Your task to perform on an android device: toggle pop-ups in chrome Image 0: 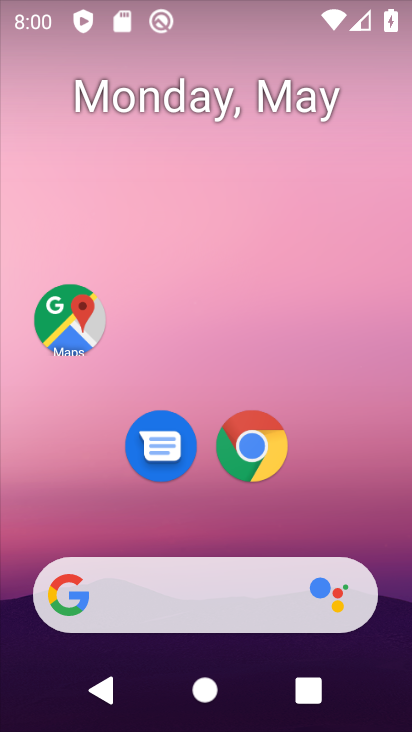
Step 0: click (266, 459)
Your task to perform on an android device: toggle pop-ups in chrome Image 1: 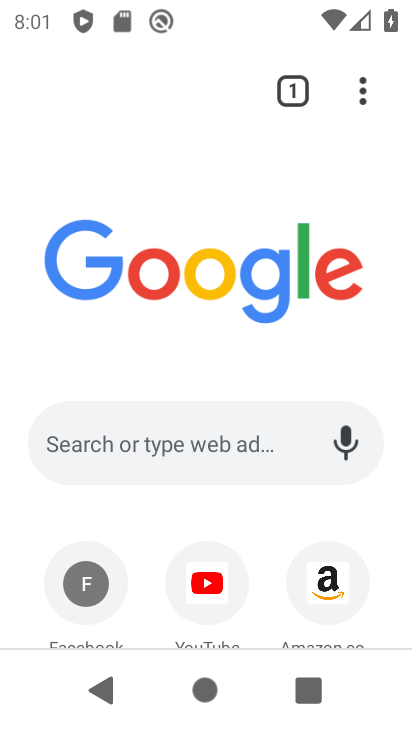
Step 1: click (360, 94)
Your task to perform on an android device: toggle pop-ups in chrome Image 2: 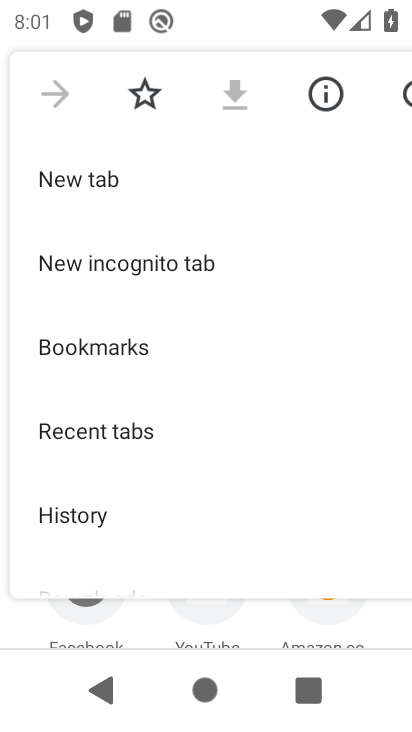
Step 2: drag from (265, 281) to (239, 59)
Your task to perform on an android device: toggle pop-ups in chrome Image 3: 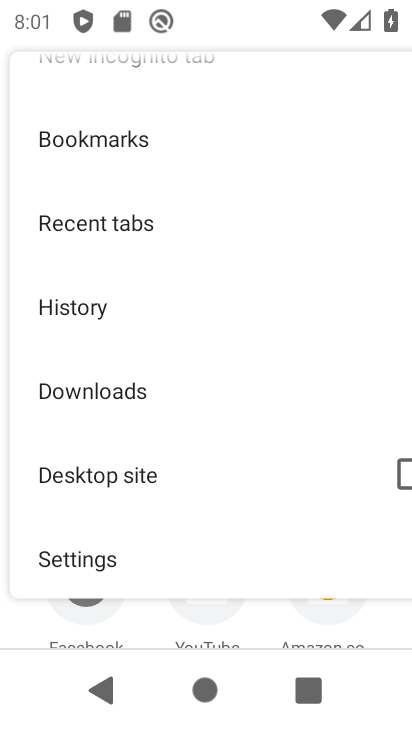
Step 3: drag from (265, 540) to (171, 300)
Your task to perform on an android device: toggle pop-ups in chrome Image 4: 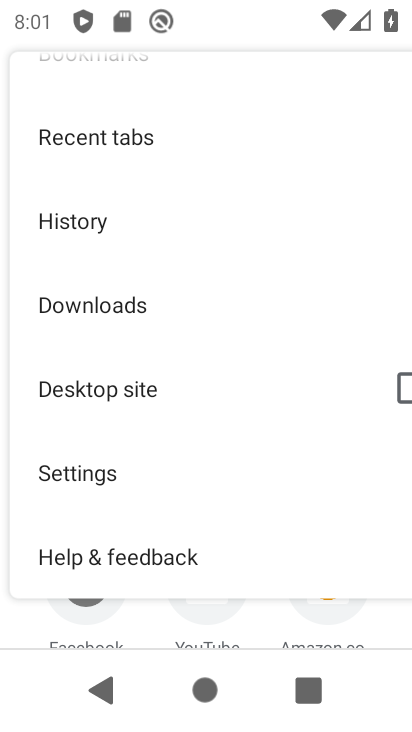
Step 4: click (126, 466)
Your task to perform on an android device: toggle pop-ups in chrome Image 5: 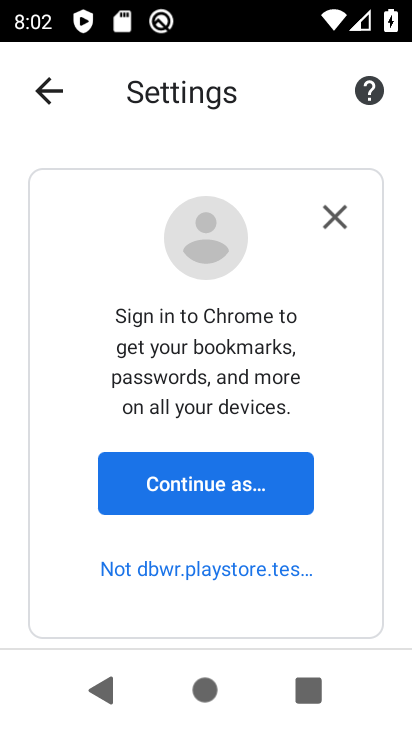
Step 5: click (170, 472)
Your task to perform on an android device: toggle pop-ups in chrome Image 6: 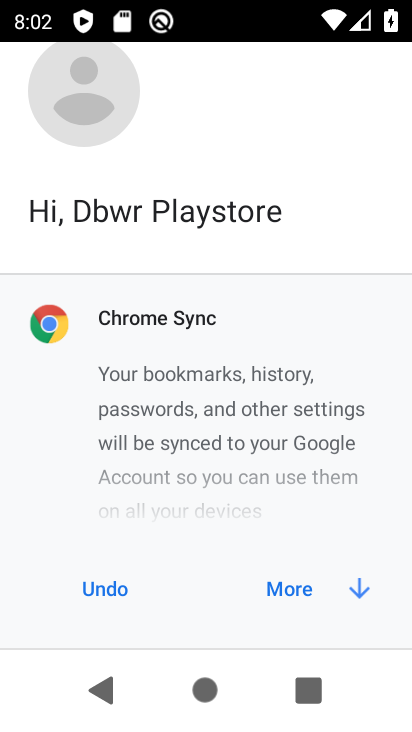
Step 6: click (282, 577)
Your task to perform on an android device: toggle pop-ups in chrome Image 7: 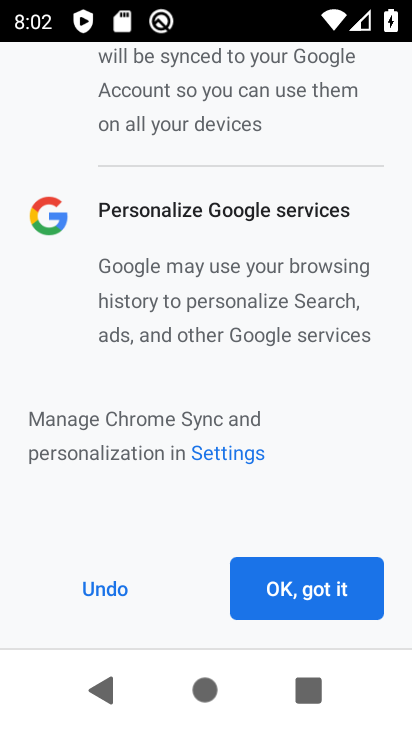
Step 7: click (291, 583)
Your task to perform on an android device: toggle pop-ups in chrome Image 8: 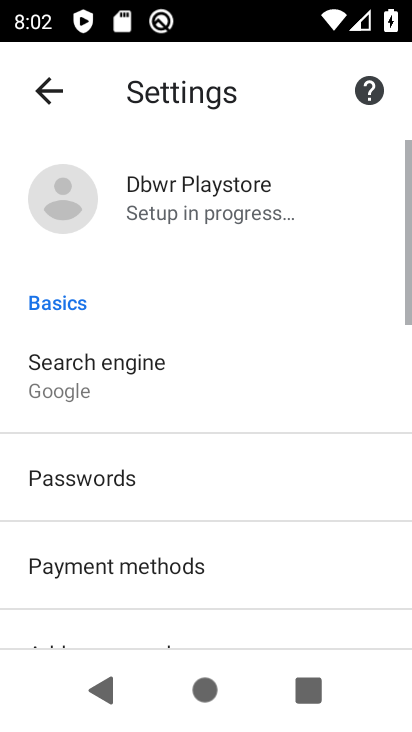
Step 8: click (291, 583)
Your task to perform on an android device: toggle pop-ups in chrome Image 9: 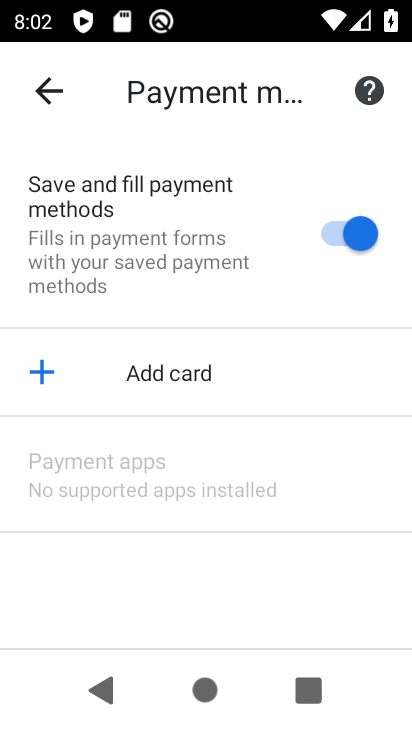
Step 9: click (35, 108)
Your task to perform on an android device: toggle pop-ups in chrome Image 10: 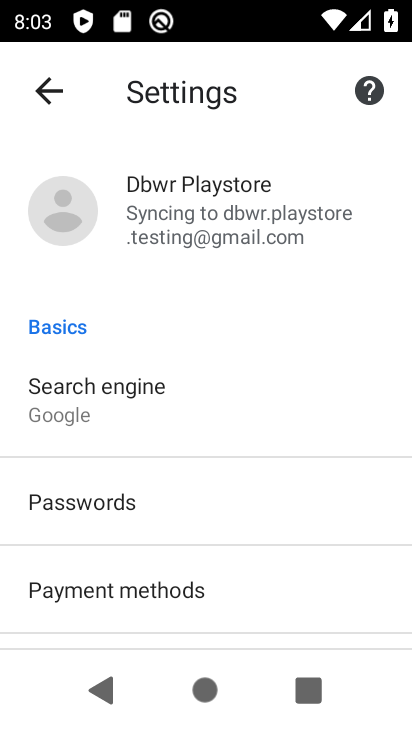
Step 10: click (176, 388)
Your task to perform on an android device: toggle pop-ups in chrome Image 11: 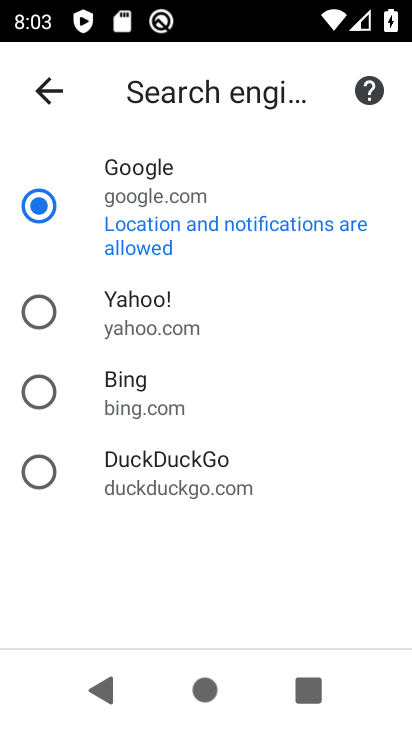
Step 11: click (51, 85)
Your task to perform on an android device: toggle pop-ups in chrome Image 12: 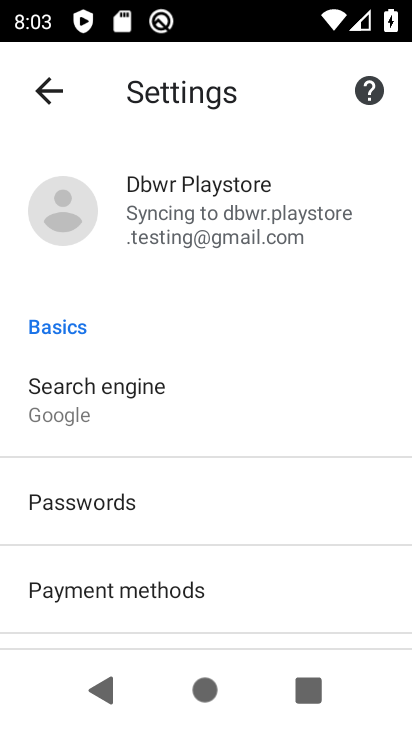
Step 12: drag from (277, 443) to (243, 296)
Your task to perform on an android device: toggle pop-ups in chrome Image 13: 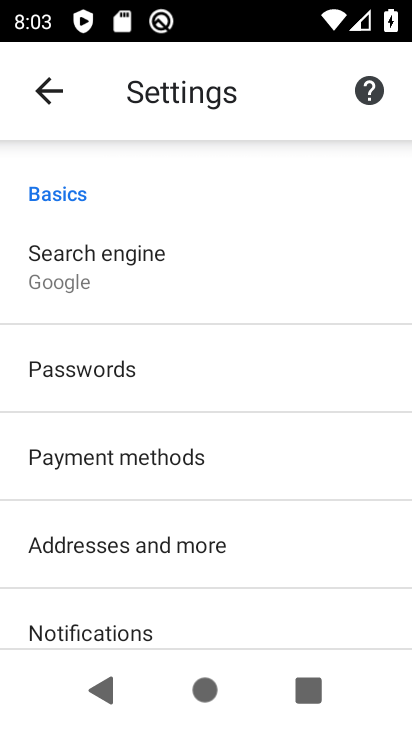
Step 13: drag from (211, 499) to (191, 234)
Your task to perform on an android device: toggle pop-ups in chrome Image 14: 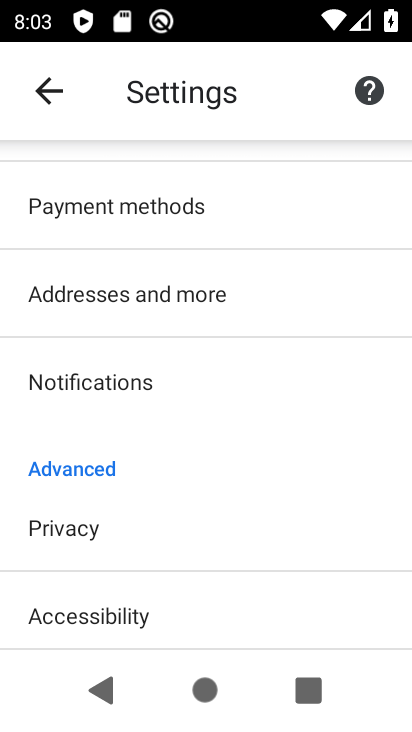
Step 14: drag from (144, 621) to (131, 325)
Your task to perform on an android device: toggle pop-ups in chrome Image 15: 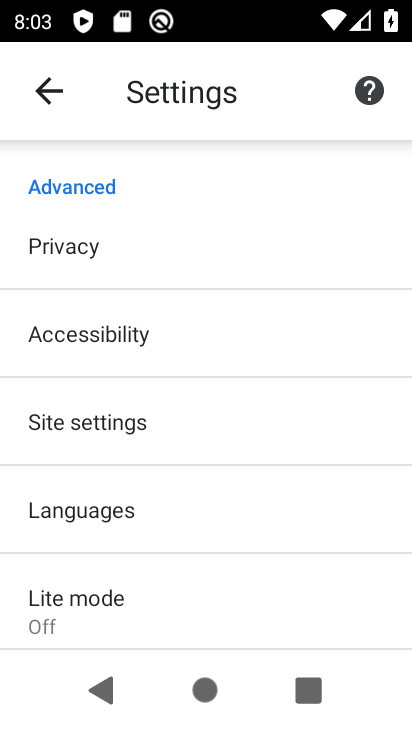
Step 15: click (134, 419)
Your task to perform on an android device: toggle pop-ups in chrome Image 16: 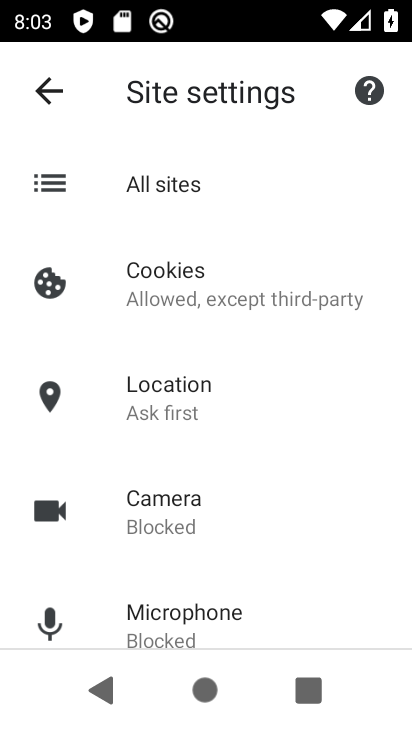
Step 16: drag from (258, 564) to (242, 253)
Your task to perform on an android device: toggle pop-ups in chrome Image 17: 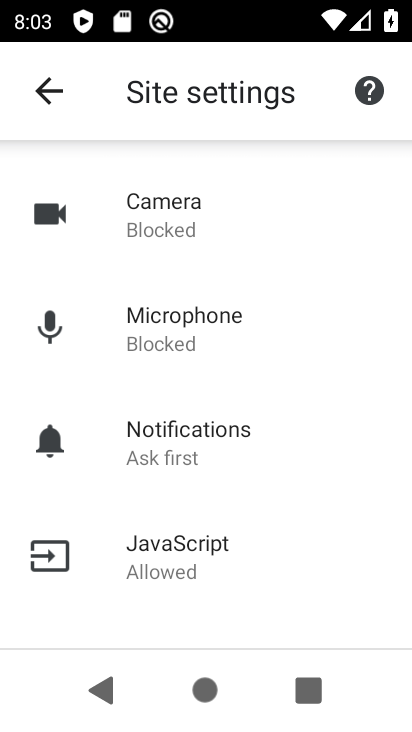
Step 17: drag from (183, 593) to (185, 292)
Your task to perform on an android device: toggle pop-ups in chrome Image 18: 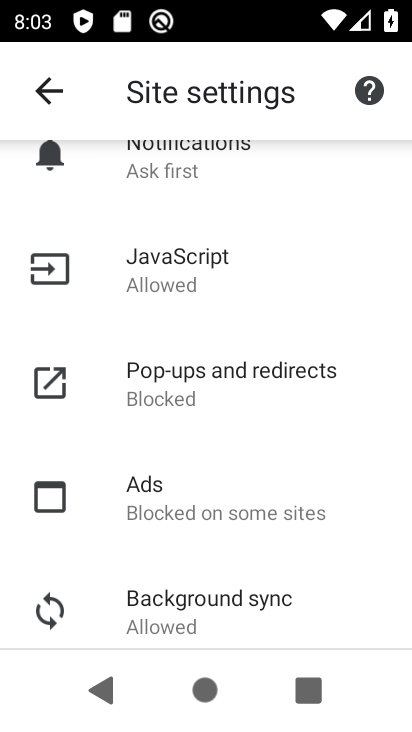
Step 18: click (148, 382)
Your task to perform on an android device: toggle pop-ups in chrome Image 19: 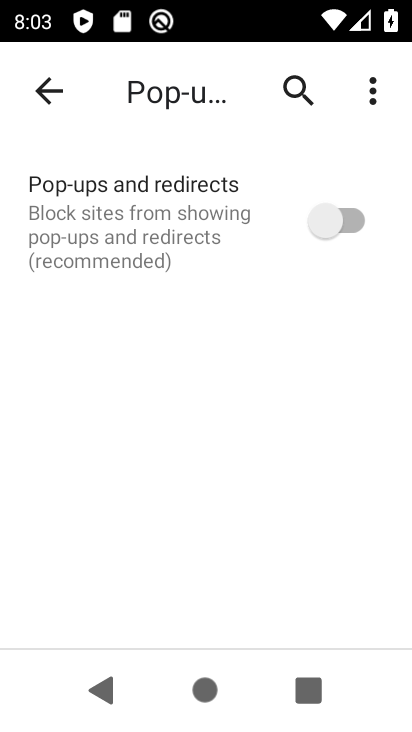
Step 19: click (351, 207)
Your task to perform on an android device: toggle pop-ups in chrome Image 20: 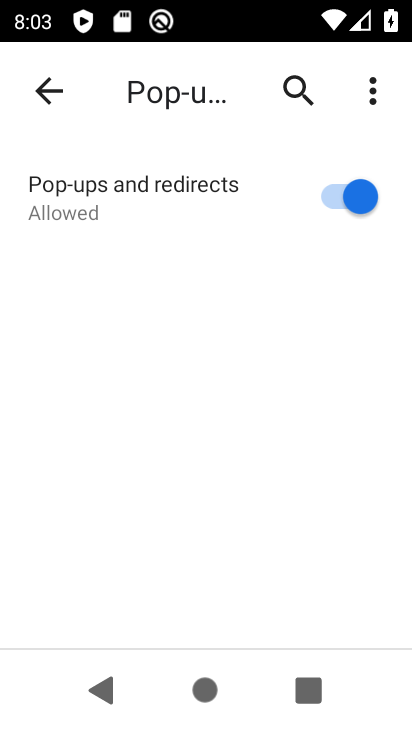
Step 20: task complete